Your task to perform on an android device: turn notification dots on Image 0: 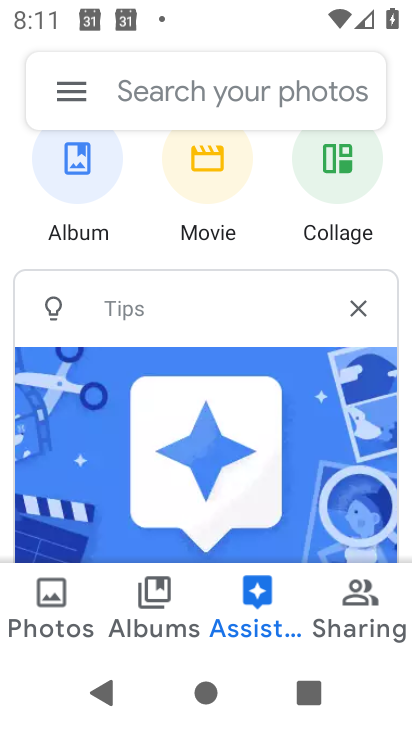
Step 0: press home button
Your task to perform on an android device: turn notification dots on Image 1: 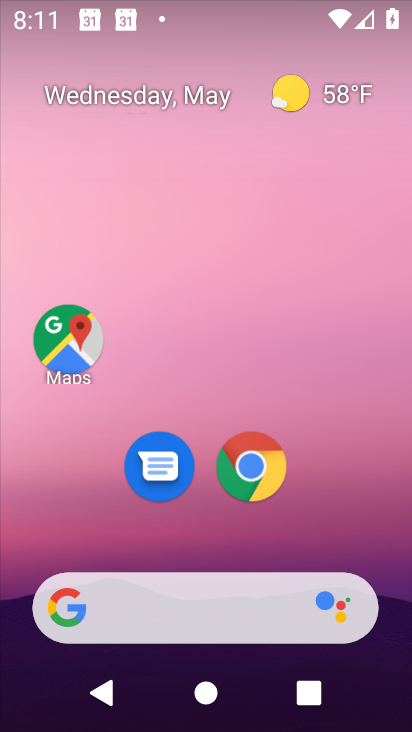
Step 1: drag from (214, 536) to (243, 4)
Your task to perform on an android device: turn notification dots on Image 2: 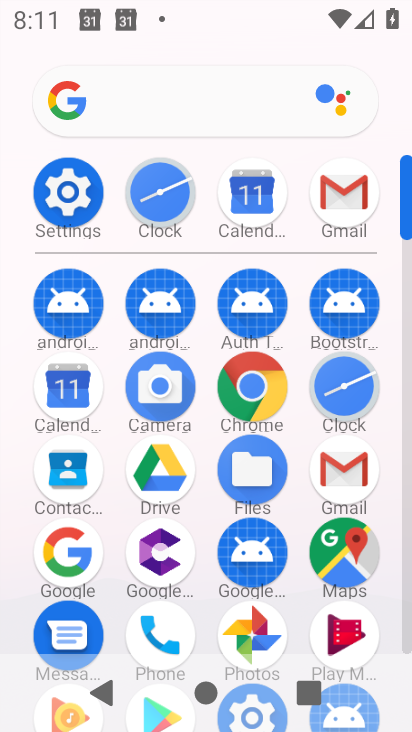
Step 2: click (60, 183)
Your task to perform on an android device: turn notification dots on Image 3: 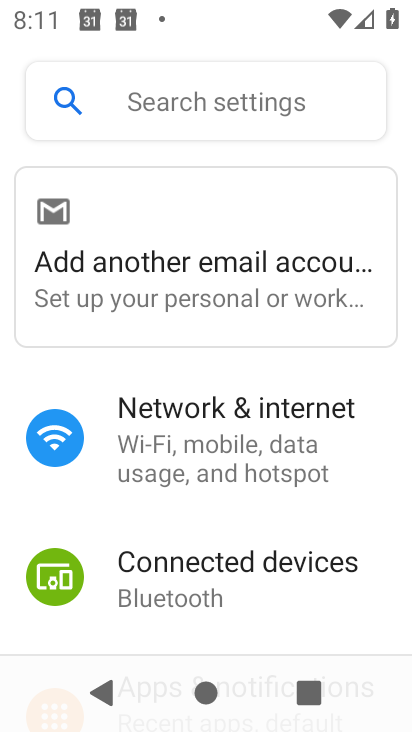
Step 3: drag from (231, 595) to (263, 115)
Your task to perform on an android device: turn notification dots on Image 4: 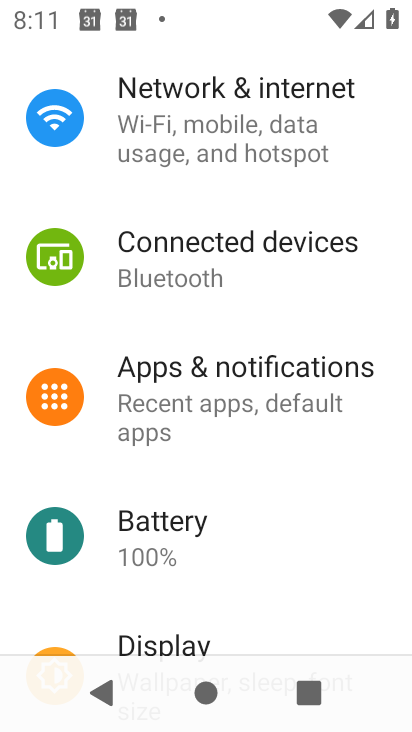
Step 4: click (261, 366)
Your task to perform on an android device: turn notification dots on Image 5: 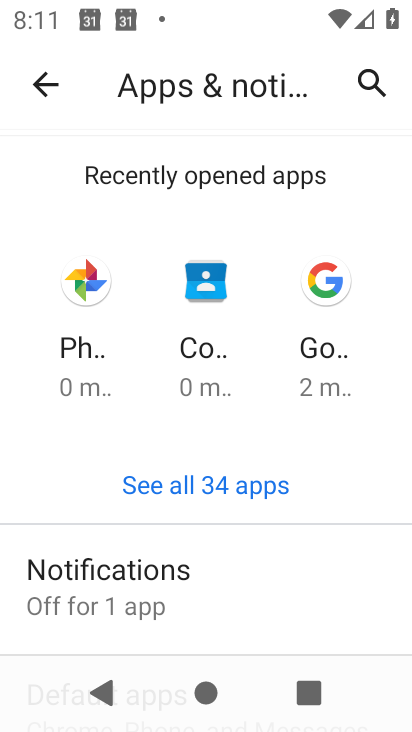
Step 5: click (201, 591)
Your task to perform on an android device: turn notification dots on Image 6: 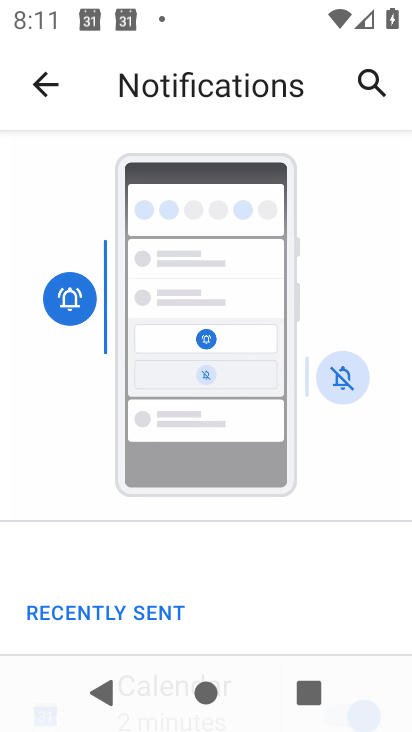
Step 6: drag from (207, 616) to (240, 173)
Your task to perform on an android device: turn notification dots on Image 7: 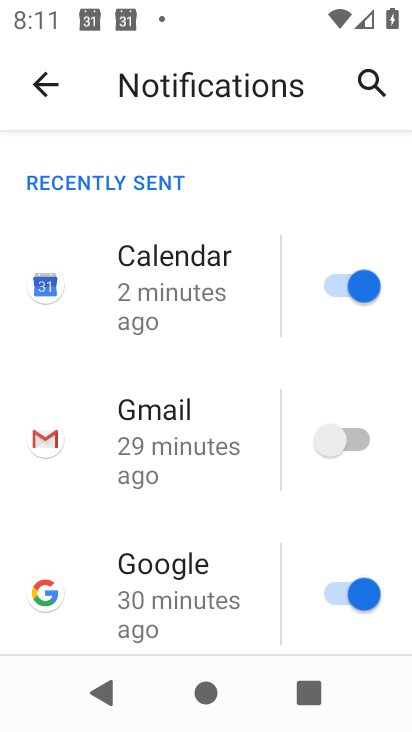
Step 7: drag from (237, 615) to (245, 265)
Your task to perform on an android device: turn notification dots on Image 8: 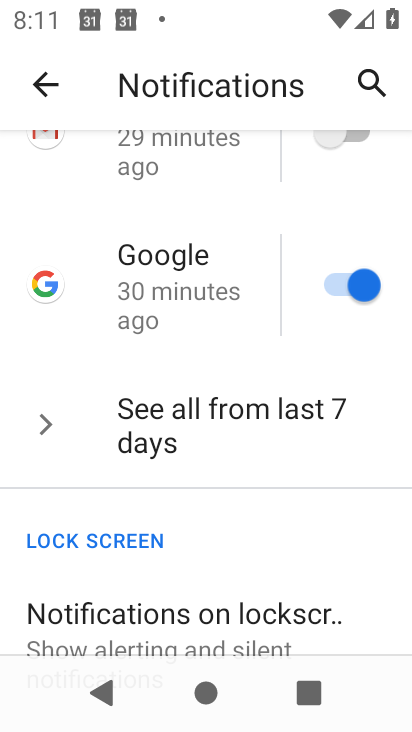
Step 8: drag from (192, 621) to (205, 173)
Your task to perform on an android device: turn notification dots on Image 9: 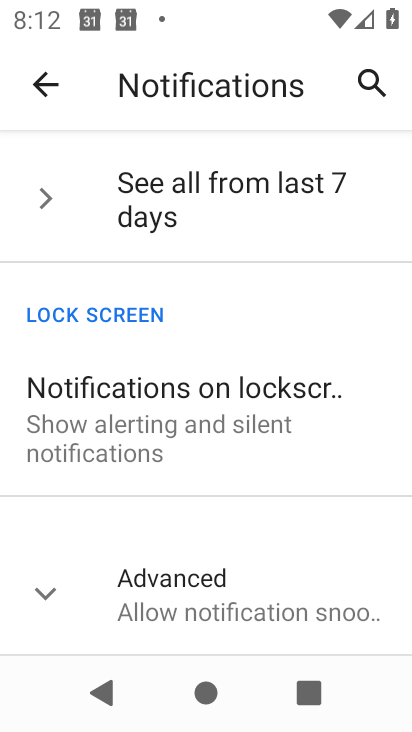
Step 9: click (192, 603)
Your task to perform on an android device: turn notification dots on Image 10: 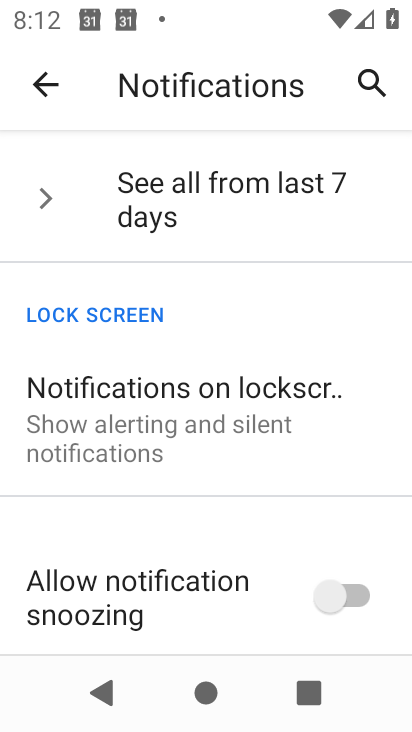
Step 10: drag from (203, 604) to (213, 260)
Your task to perform on an android device: turn notification dots on Image 11: 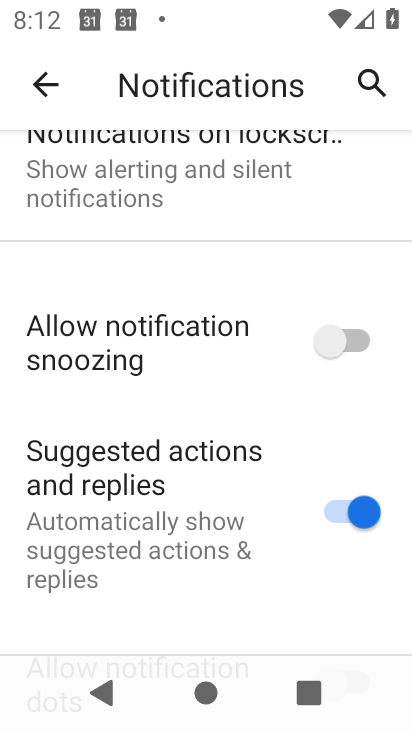
Step 11: drag from (211, 511) to (222, 40)
Your task to perform on an android device: turn notification dots on Image 12: 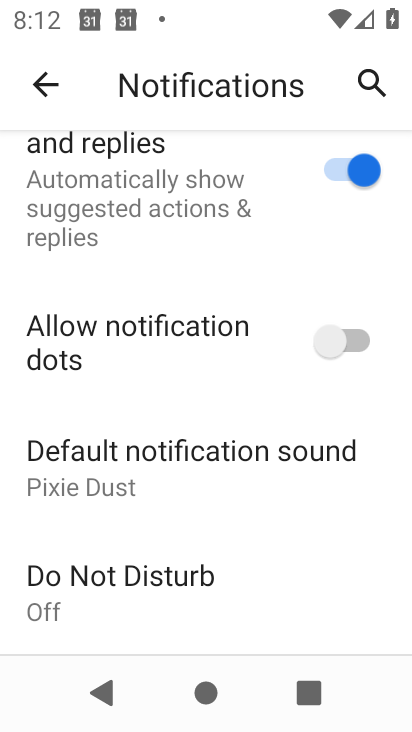
Step 12: click (349, 339)
Your task to perform on an android device: turn notification dots on Image 13: 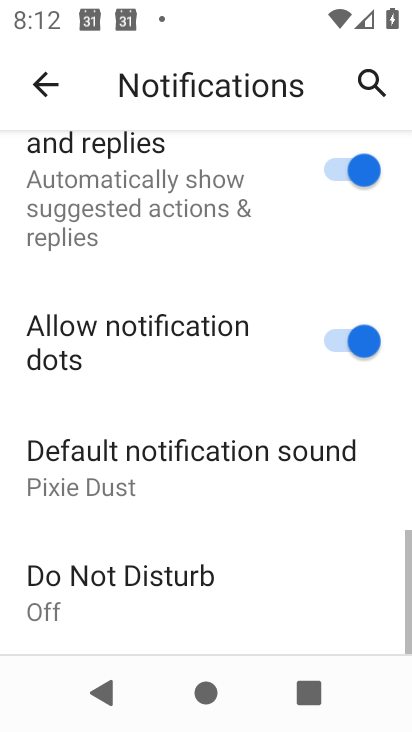
Step 13: task complete